Your task to perform on an android device: turn off data saver in the chrome app Image 0: 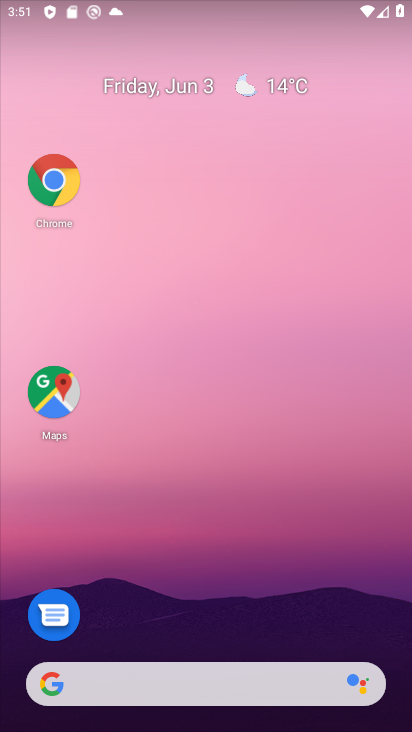
Step 0: click (105, 706)
Your task to perform on an android device: turn off data saver in the chrome app Image 1: 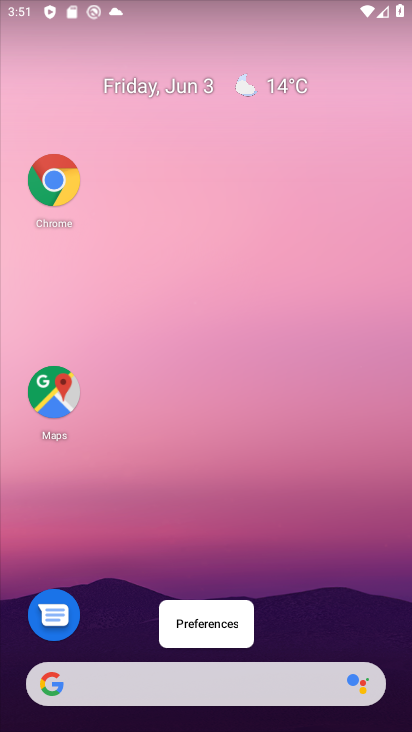
Step 1: click (57, 183)
Your task to perform on an android device: turn off data saver in the chrome app Image 2: 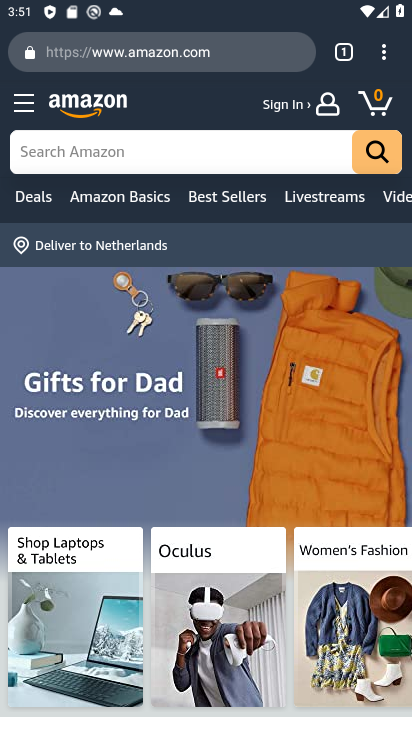
Step 2: click (386, 55)
Your task to perform on an android device: turn off data saver in the chrome app Image 3: 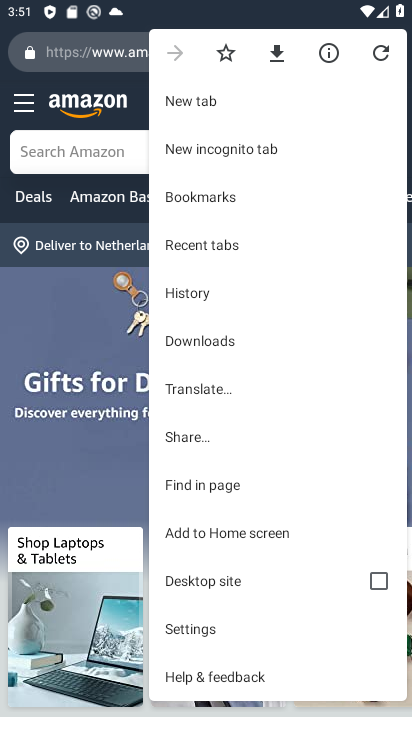
Step 3: click (194, 633)
Your task to perform on an android device: turn off data saver in the chrome app Image 4: 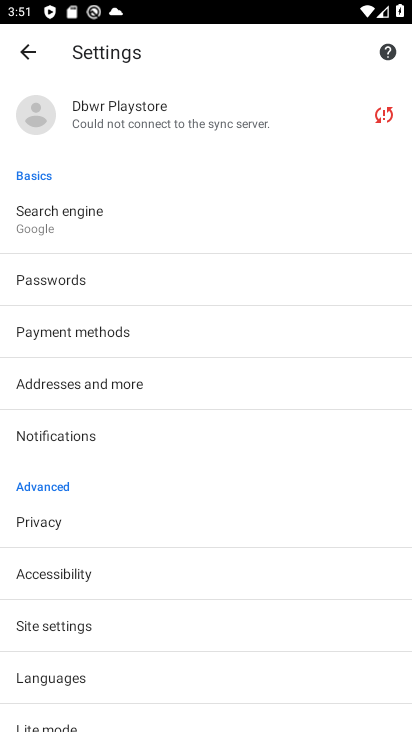
Step 4: click (68, 721)
Your task to perform on an android device: turn off data saver in the chrome app Image 5: 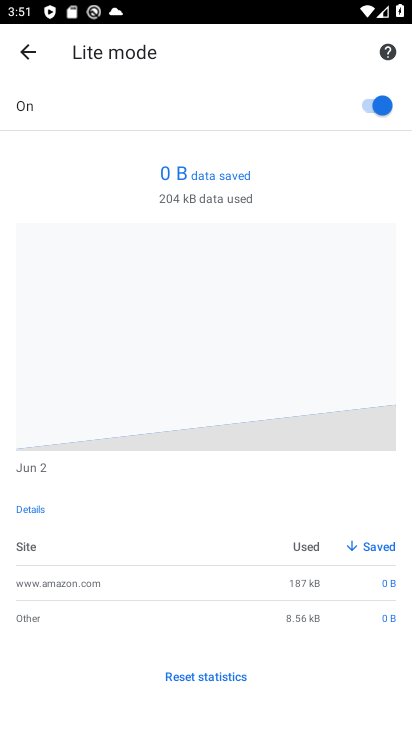
Step 5: click (380, 112)
Your task to perform on an android device: turn off data saver in the chrome app Image 6: 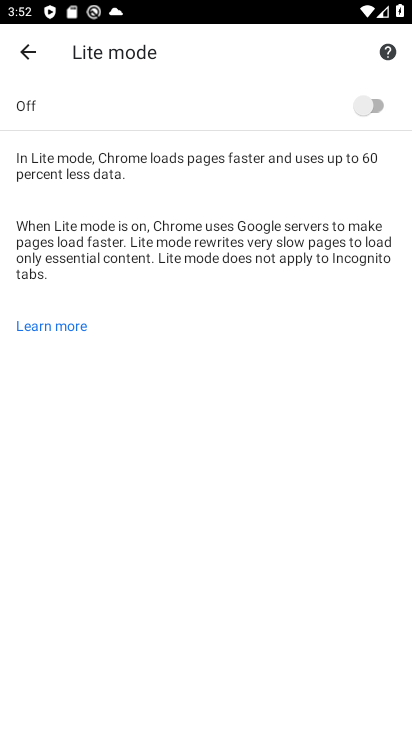
Step 6: task complete